Your task to perform on an android device: Go to calendar. Show me events next week Image 0: 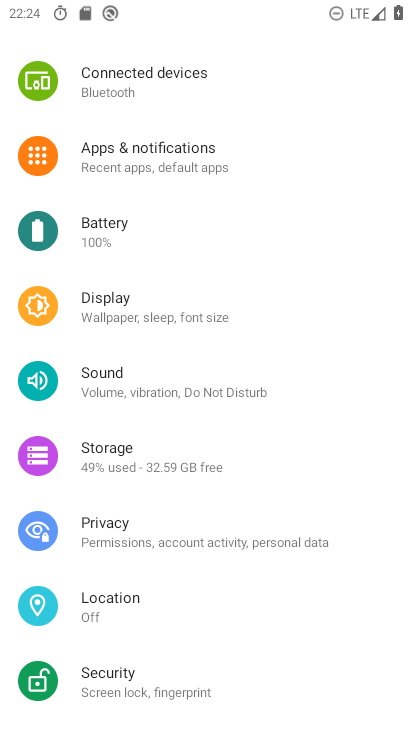
Step 0: press home button
Your task to perform on an android device: Go to calendar. Show me events next week Image 1: 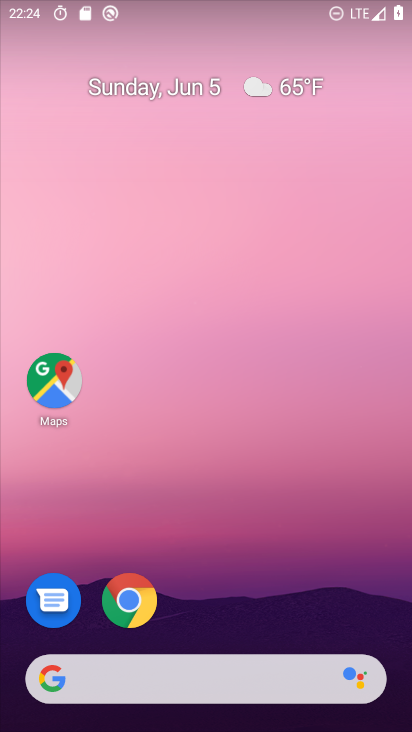
Step 1: drag from (279, 533) to (300, 98)
Your task to perform on an android device: Go to calendar. Show me events next week Image 2: 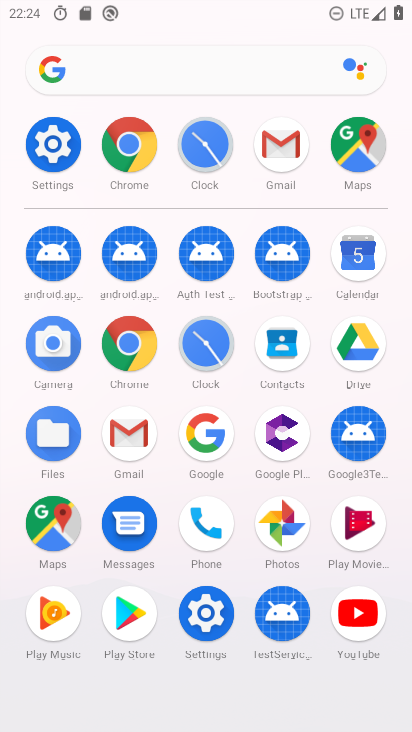
Step 2: click (364, 260)
Your task to perform on an android device: Go to calendar. Show me events next week Image 3: 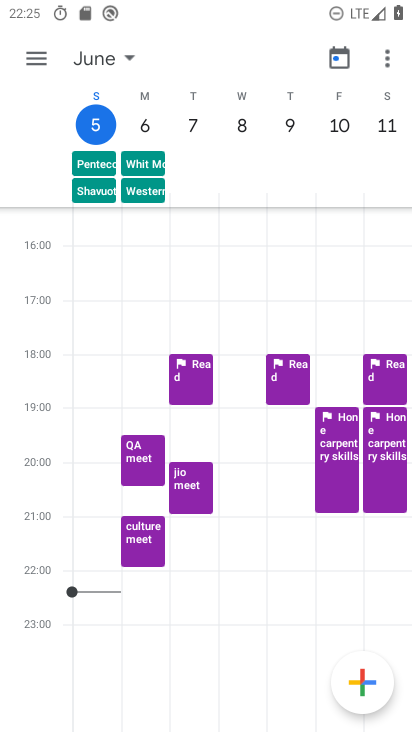
Step 3: task complete